Your task to perform on an android device: turn on sleep mode Image 0: 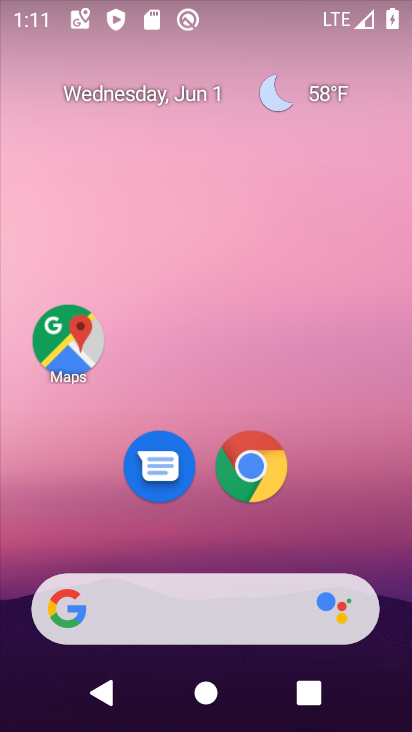
Step 0: drag from (383, 570) to (253, 155)
Your task to perform on an android device: turn on sleep mode Image 1: 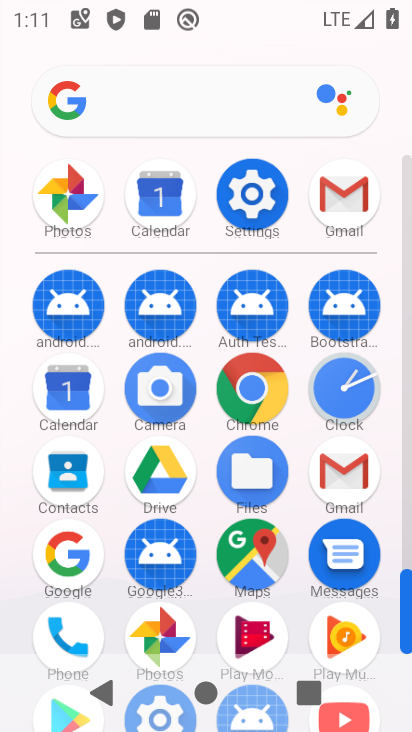
Step 1: click (268, 200)
Your task to perform on an android device: turn on sleep mode Image 2: 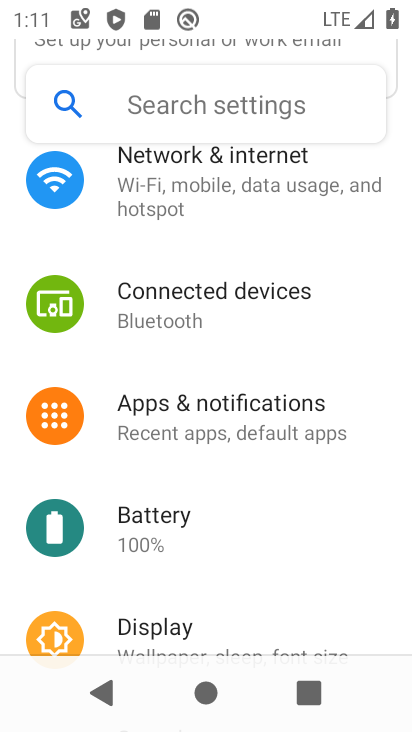
Step 2: click (282, 629)
Your task to perform on an android device: turn on sleep mode Image 3: 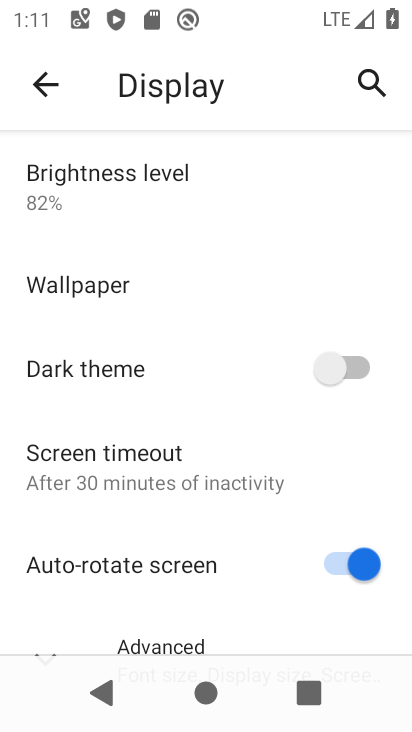
Step 3: drag from (236, 591) to (196, 302)
Your task to perform on an android device: turn on sleep mode Image 4: 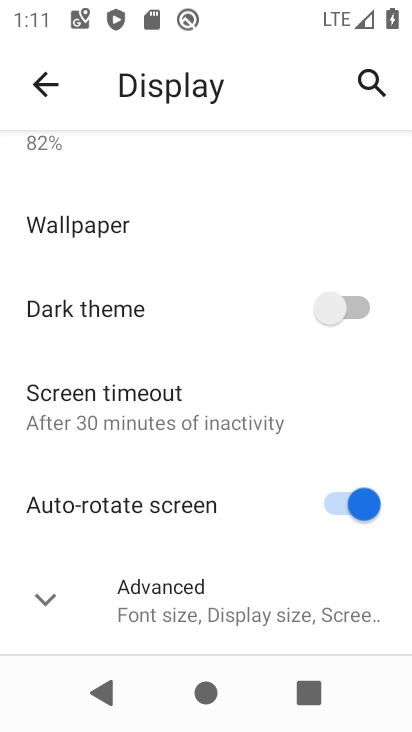
Step 4: click (246, 581)
Your task to perform on an android device: turn on sleep mode Image 5: 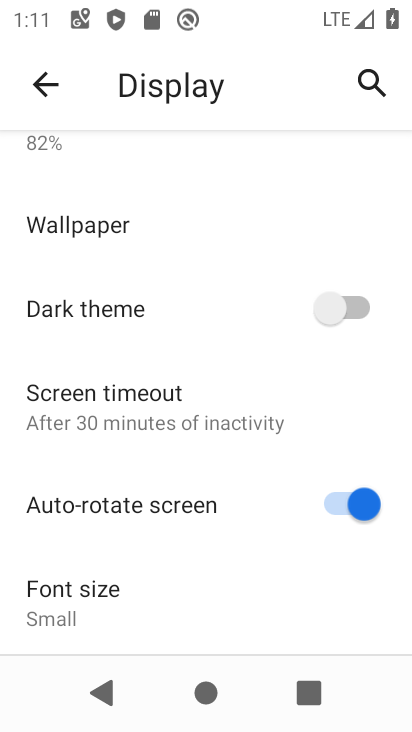
Step 5: task complete